Your task to perform on an android device: Find coffee shops on Maps Image 0: 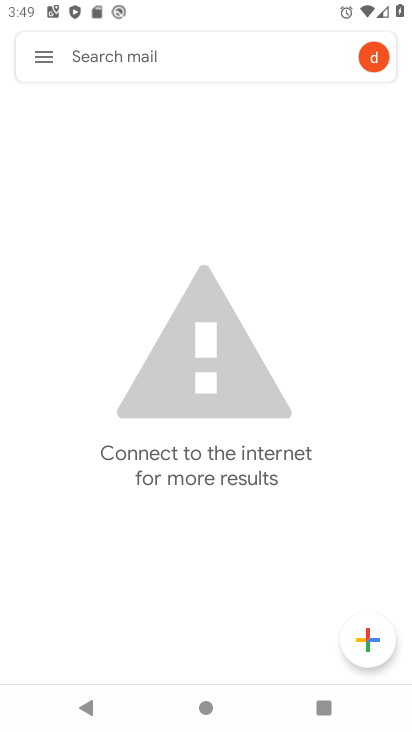
Step 0: press home button
Your task to perform on an android device: Find coffee shops on Maps Image 1: 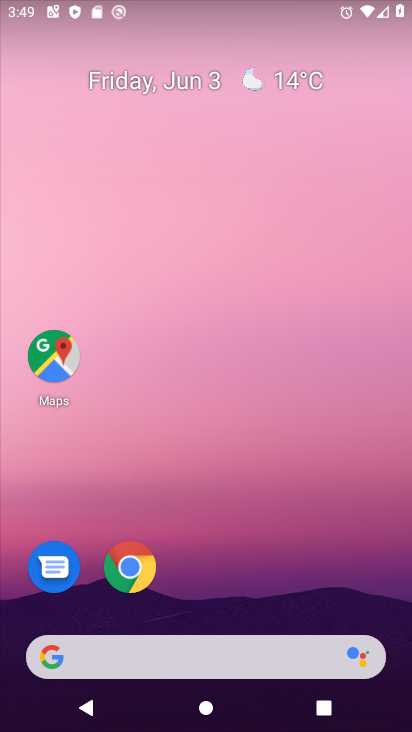
Step 1: drag from (260, 684) to (228, 176)
Your task to perform on an android device: Find coffee shops on Maps Image 2: 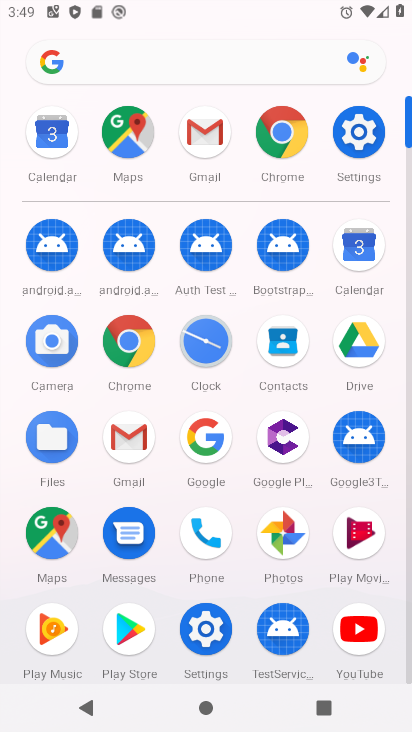
Step 2: click (52, 532)
Your task to perform on an android device: Find coffee shops on Maps Image 3: 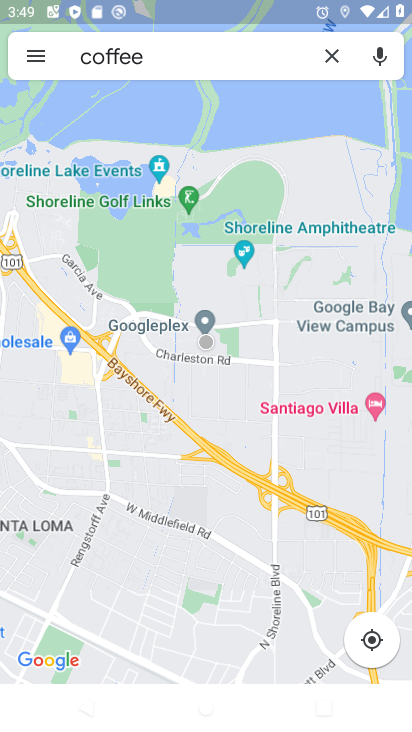
Step 3: click (234, 65)
Your task to perform on an android device: Find coffee shops on Maps Image 4: 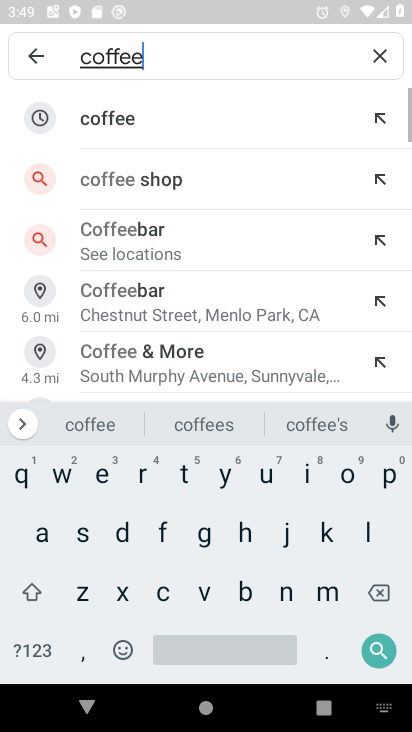
Step 4: click (370, 657)
Your task to perform on an android device: Find coffee shops on Maps Image 5: 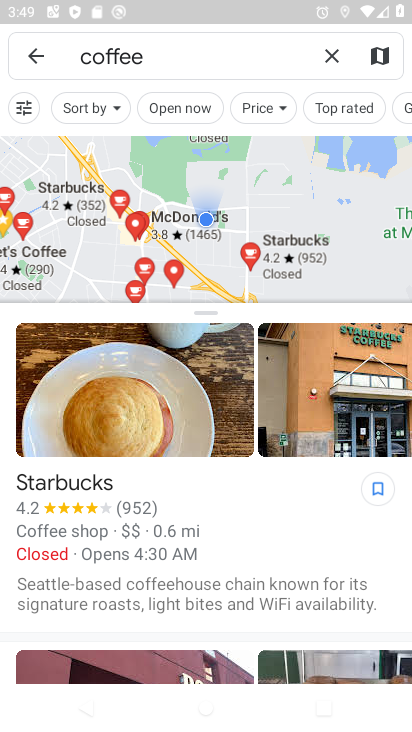
Step 5: click (102, 274)
Your task to perform on an android device: Find coffee shops on Maps Image 6: 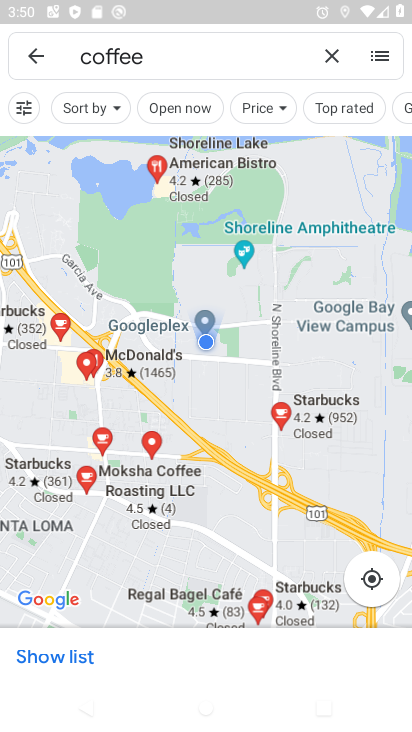
Step 6: task complete